Your task to perform on an android device: Open Yahoo.com Image 0: 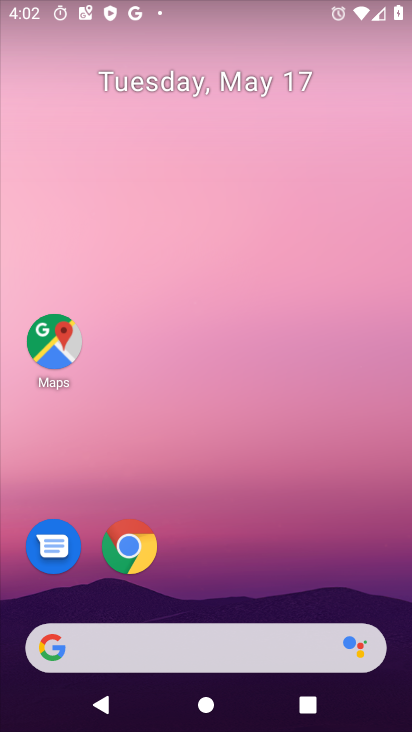
Step 0: click (124, 544)
Your task to perform on an android device: Open Yahoo.com Image 1: 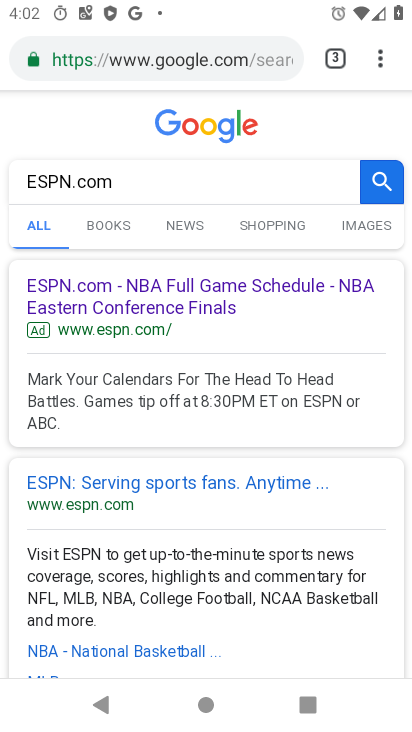
Step 1: click (292, 60)
Your task to perform on an android device: Open Yahoo.com Image 2: 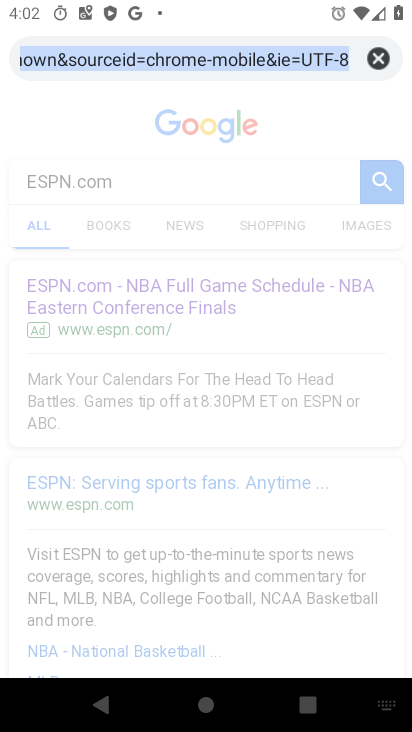
Step 2: click (375, 57)
Your task to perform on an android device: Open Yahoo.com Image 3: 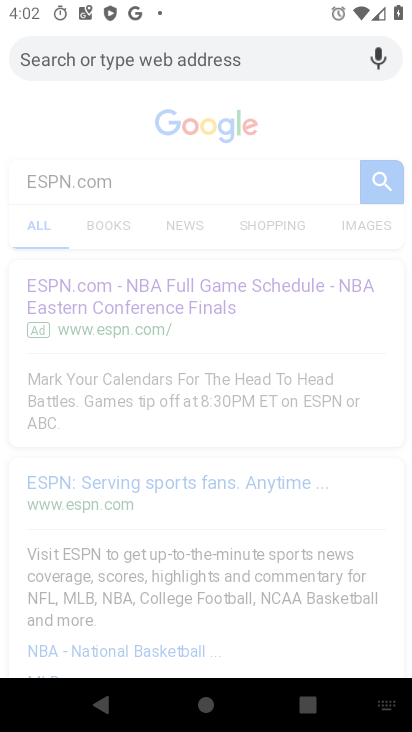
Step 3: type "Yahoo.com"
Your task to perform on an android device: Open Yahoo.com Image 4: 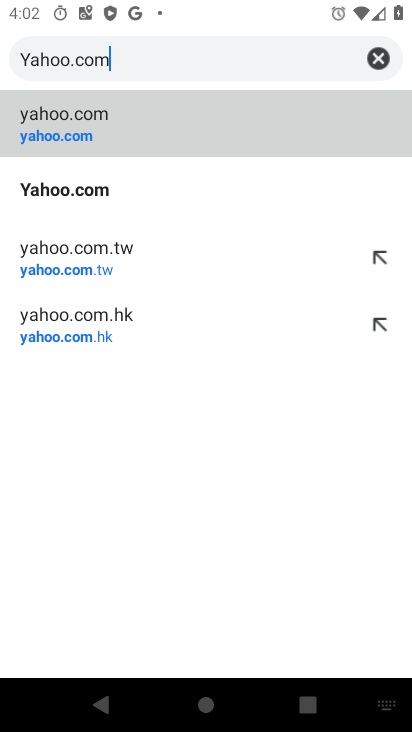
Step 4: click (53, 186)
Your task to perform on an android device: Open Yahoo.com Image 5: 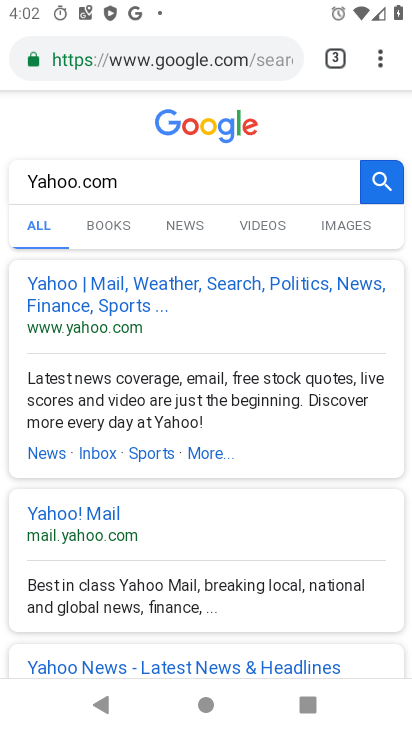
Step 5: task complete